Your task to perform on an android device: turn on wifi Image 0: 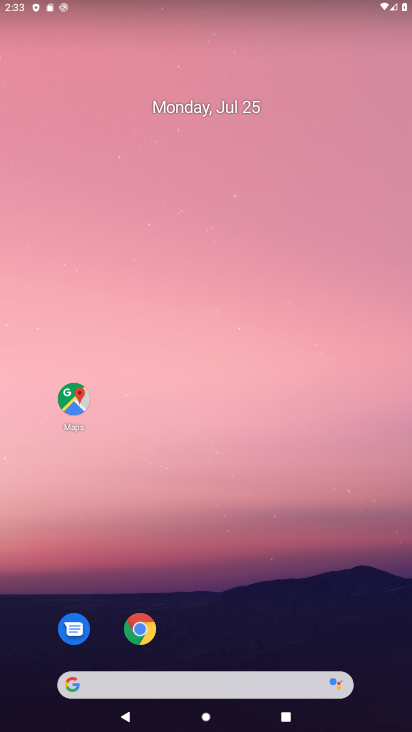
Step 0: drag from (276, 3) to (280, 559)
Your task to perform on an android device: turn on wifi Image 1: 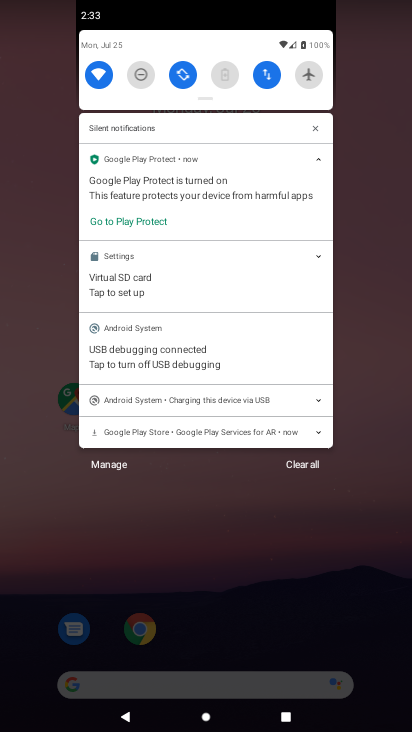
Step 1: task complete